Your task to perform on an android device: find photos in the google photos app Image 0: 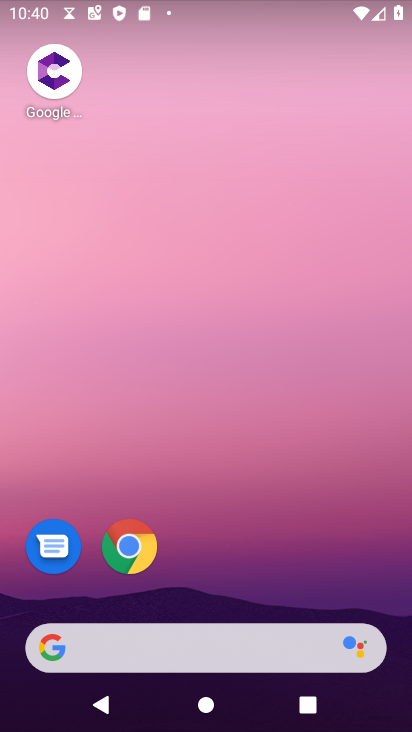
Step 0: drag from (269, 539) to (207, 108)
Your task to perform on an android device: find photos in the google photos app Image 1: 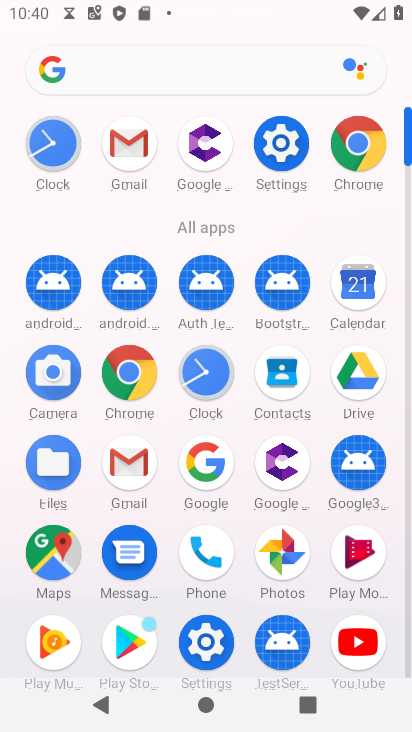
Step 1: click (276, 541)
Your task to perform on an android device: find photos in the google photos app Image 2: 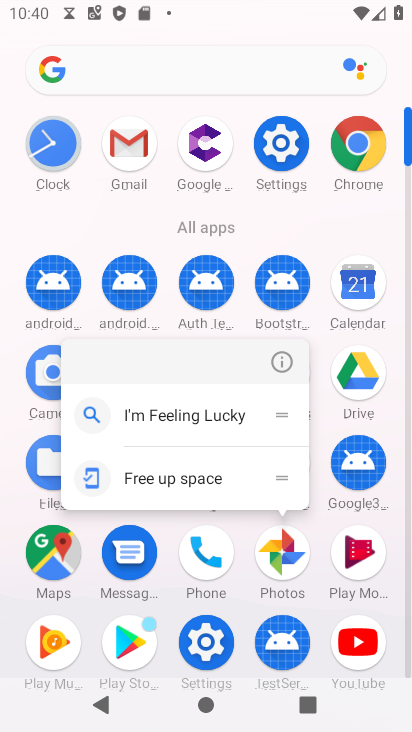
Step 2: click (278, 566)
Your task to perform on an android device: find photos in the google photos app Image 3: 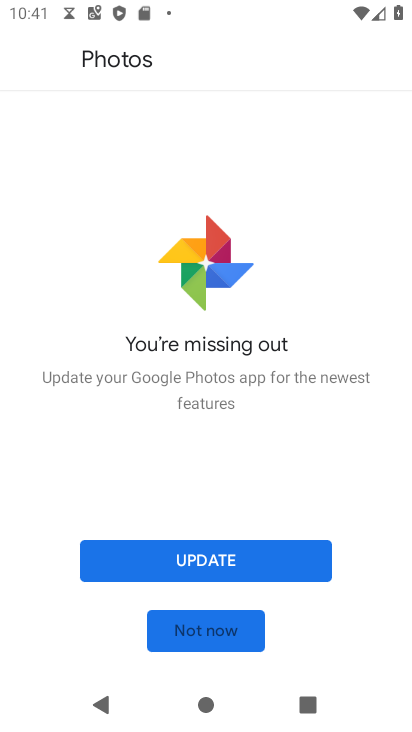
Step 3: click (223, 633)
Your task to perform on an android device: find photos in the google photos app Image 4: 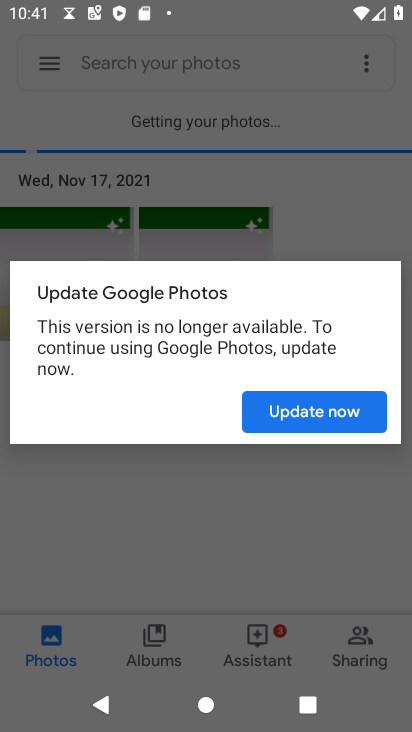
Step 4: click (298, 424)
Your task to perform on an android device: find photos in the google photos app Image 5: 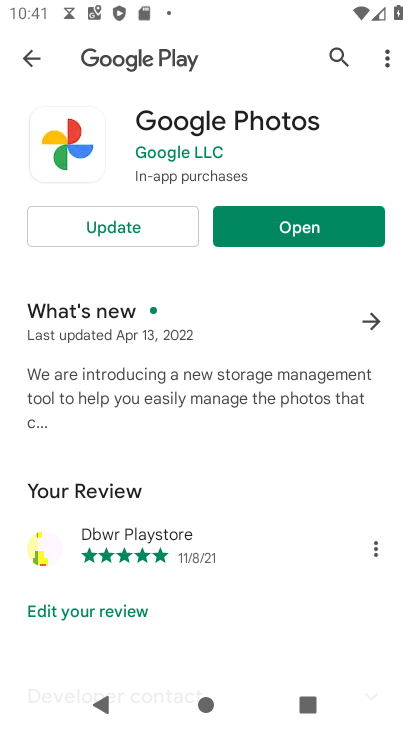
Step 5: click (249, 214)
Your task to perform on an android device: find photos in the google photos app Image 6: 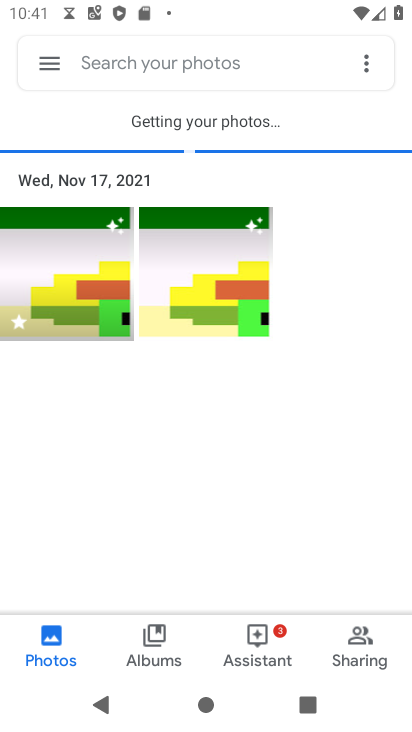
Step 6: click (163, 63)
Your task to perform on an android device: find photos in the google photos app Image 7: 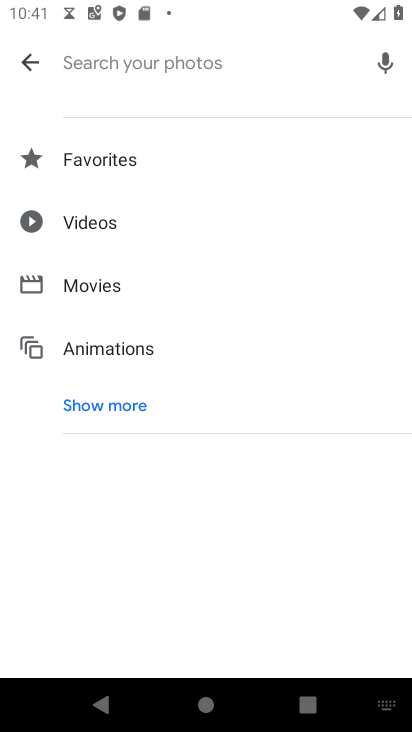
Step 7: click (72, 160)
Your task to perform on an android device: find photos in the google photos app Image 8: 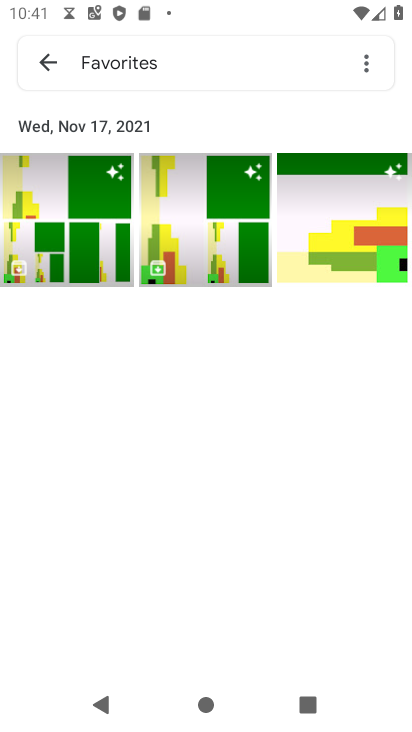
Step 8: task complete